Your task to perform on an android device: clear all cookies in the chrome app Image 0: 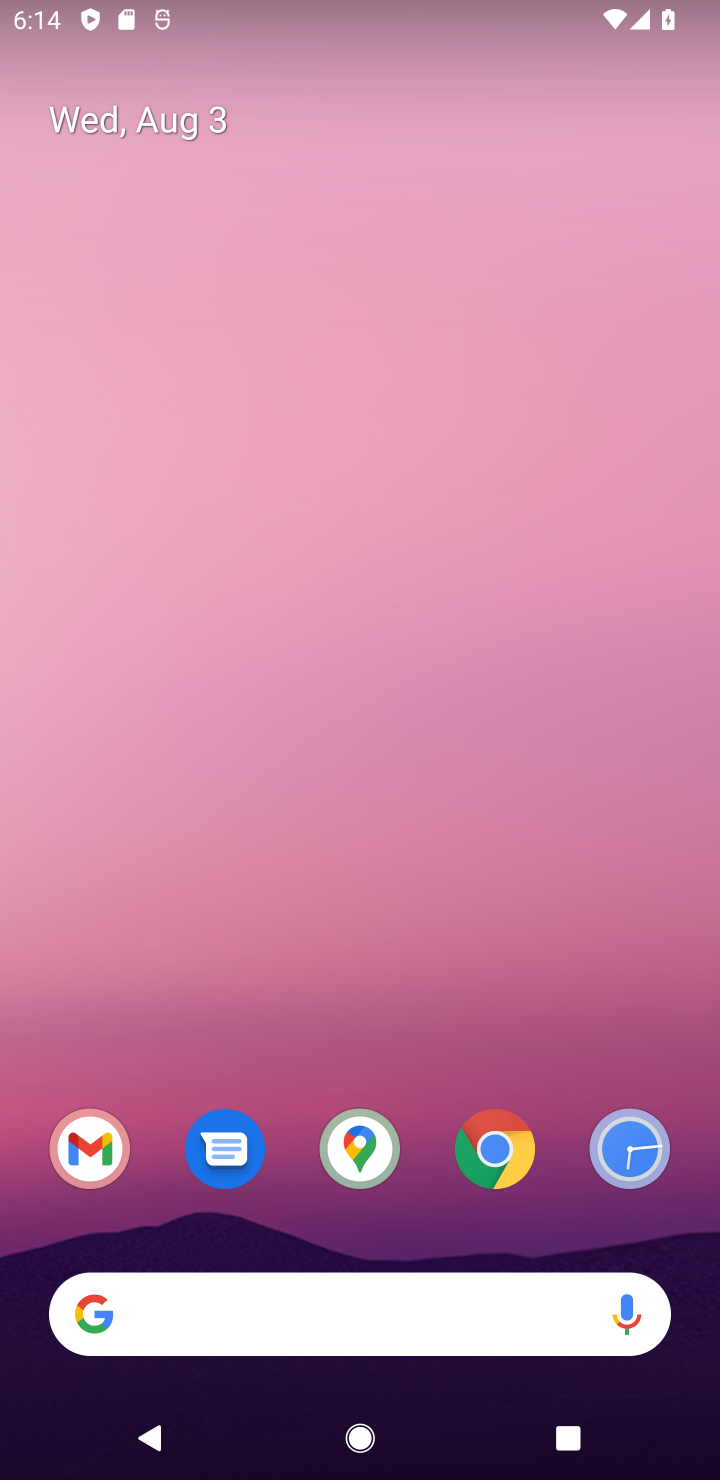
Step 0: click (494, 1147)
Your task to perform on an android device: clear all cookies in the chrome app Image 1: 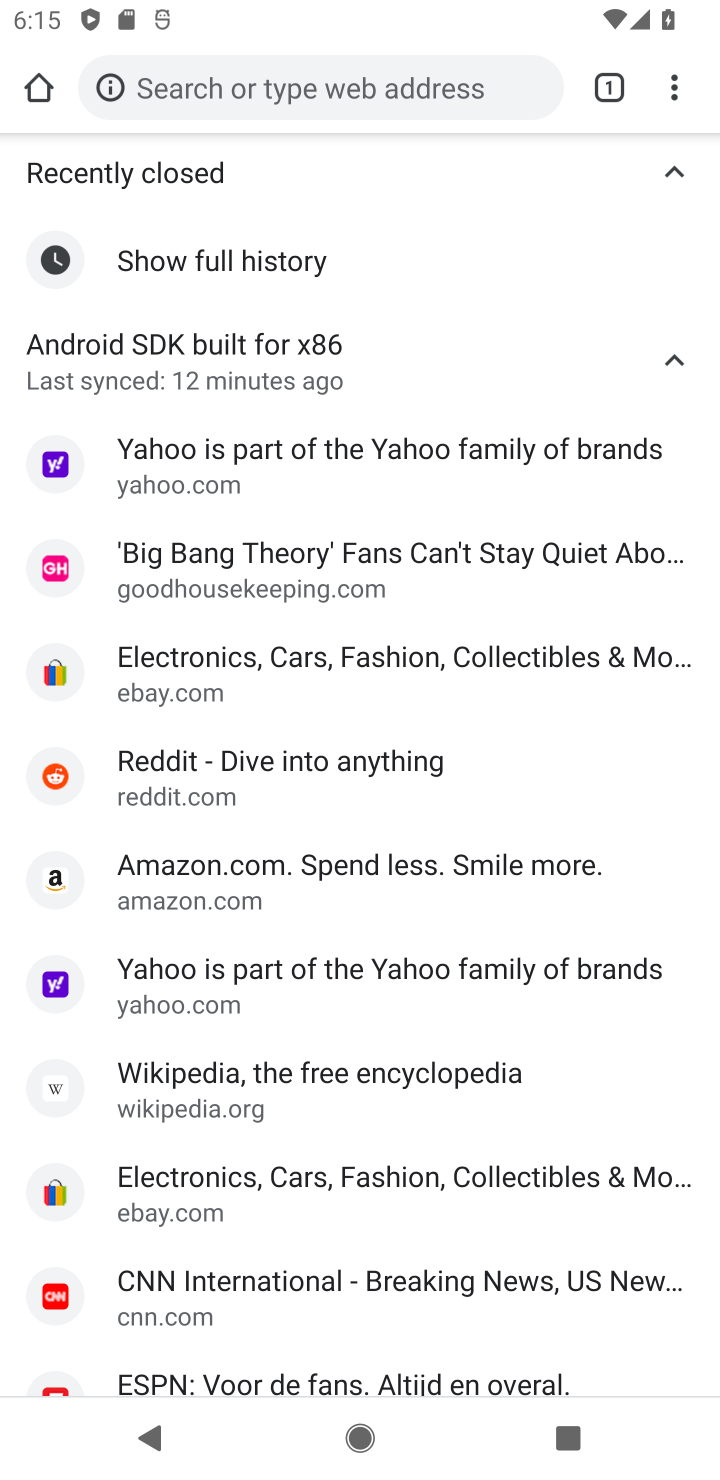
Step 1: drag from (666, 95) to (494, 879)
Your task to perform on an android device: clear all cookies in the chrome app Image 2: 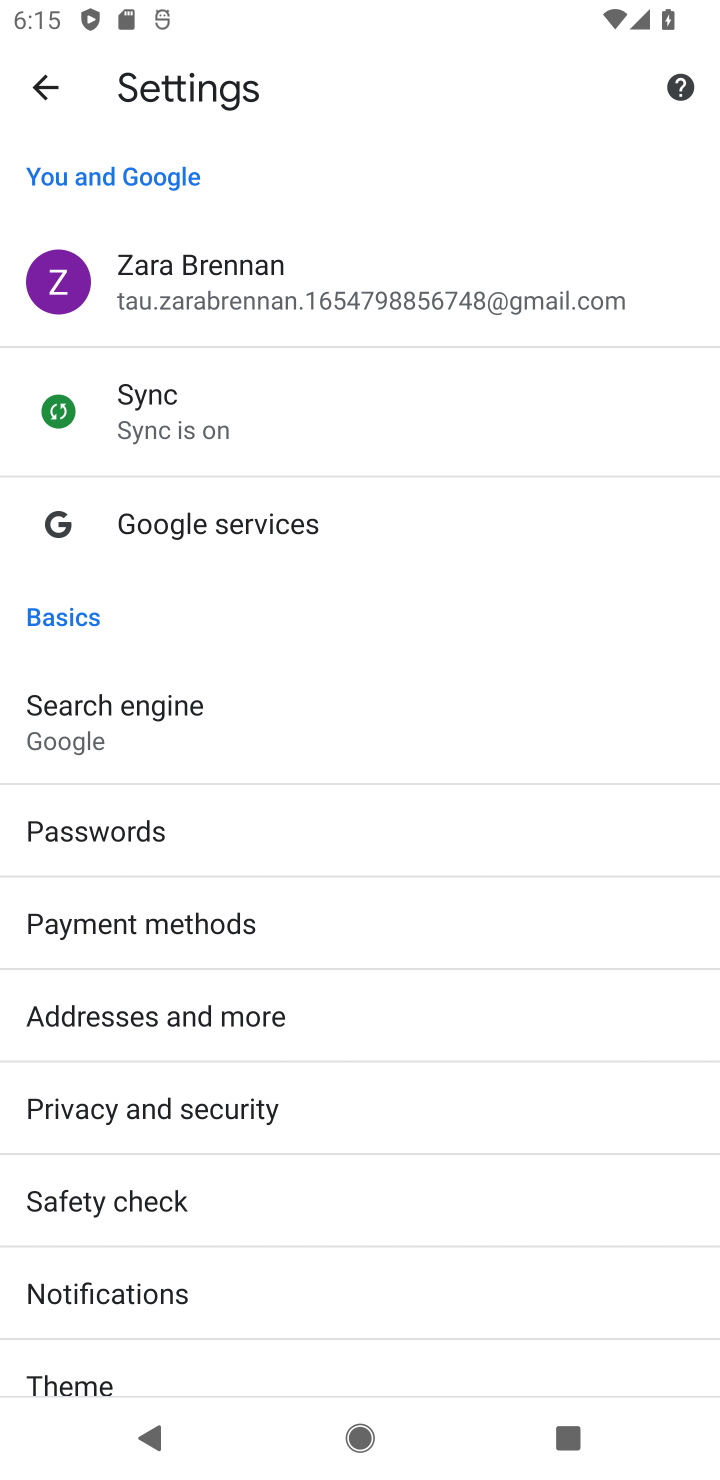
Step 2: drag from (258, 1322) to (274, 696)
Your task to perform on an android device: clear all cookies in the chrome app Image 3: 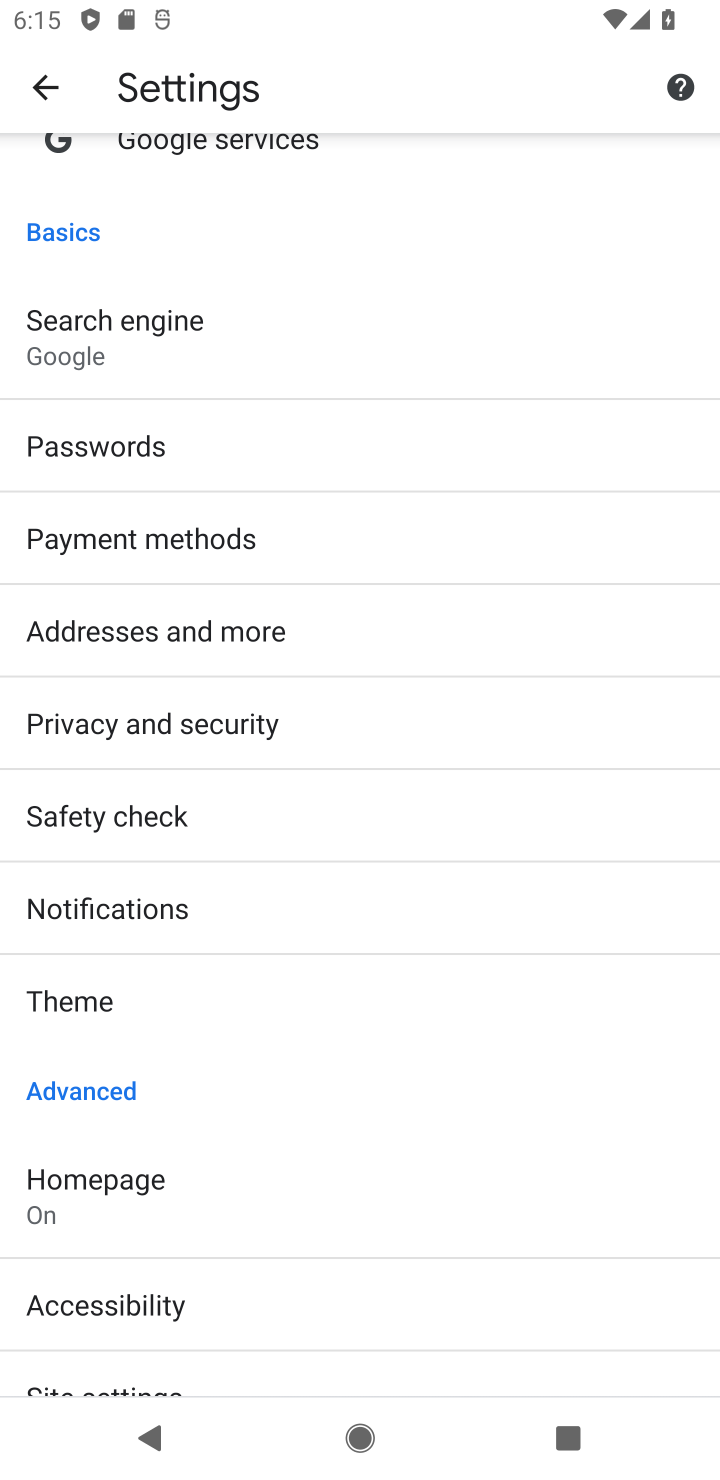
Step 3: click (274, 696)
Your task to perform on an android device: clear all cookies in the chrome app Image 4: 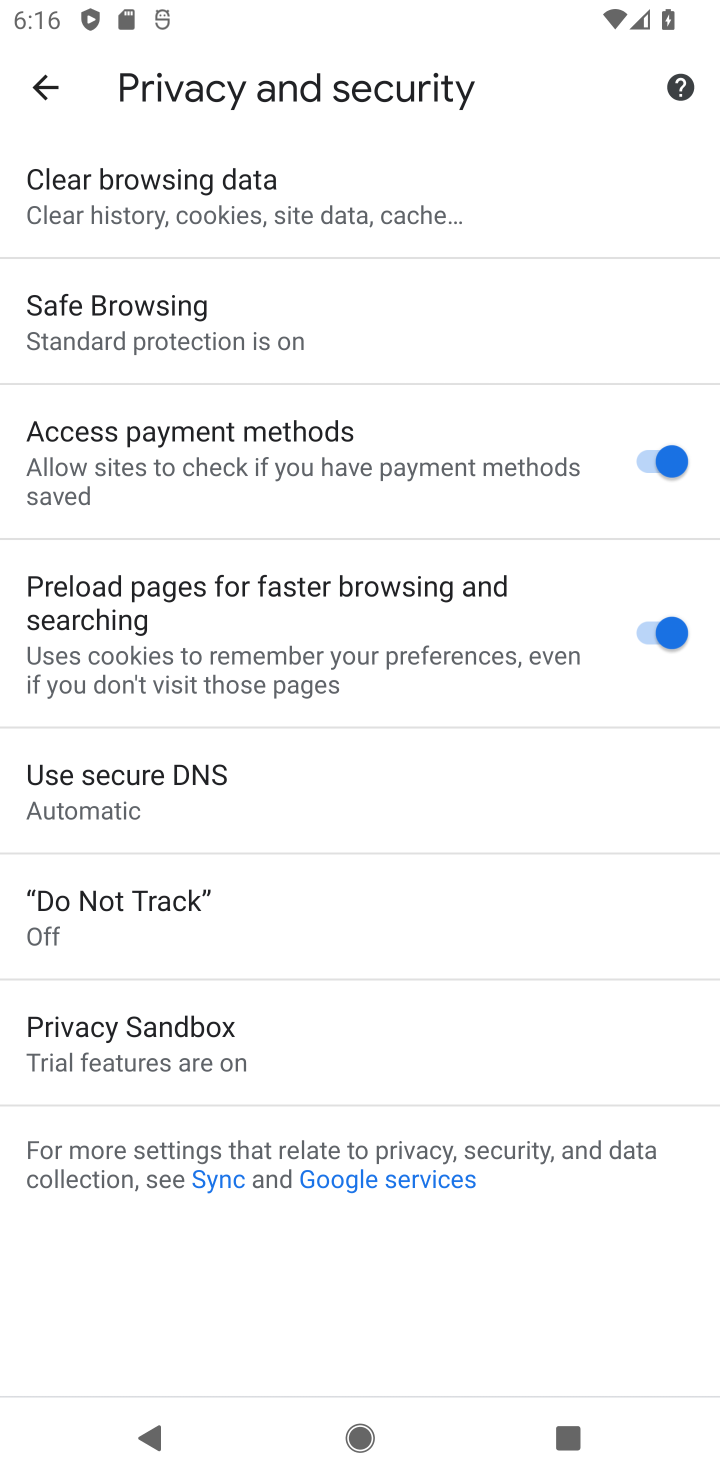
Step 4: click (254, 207)
Your task to perform on an android device: clear all cookies in the chrome app Image 5: 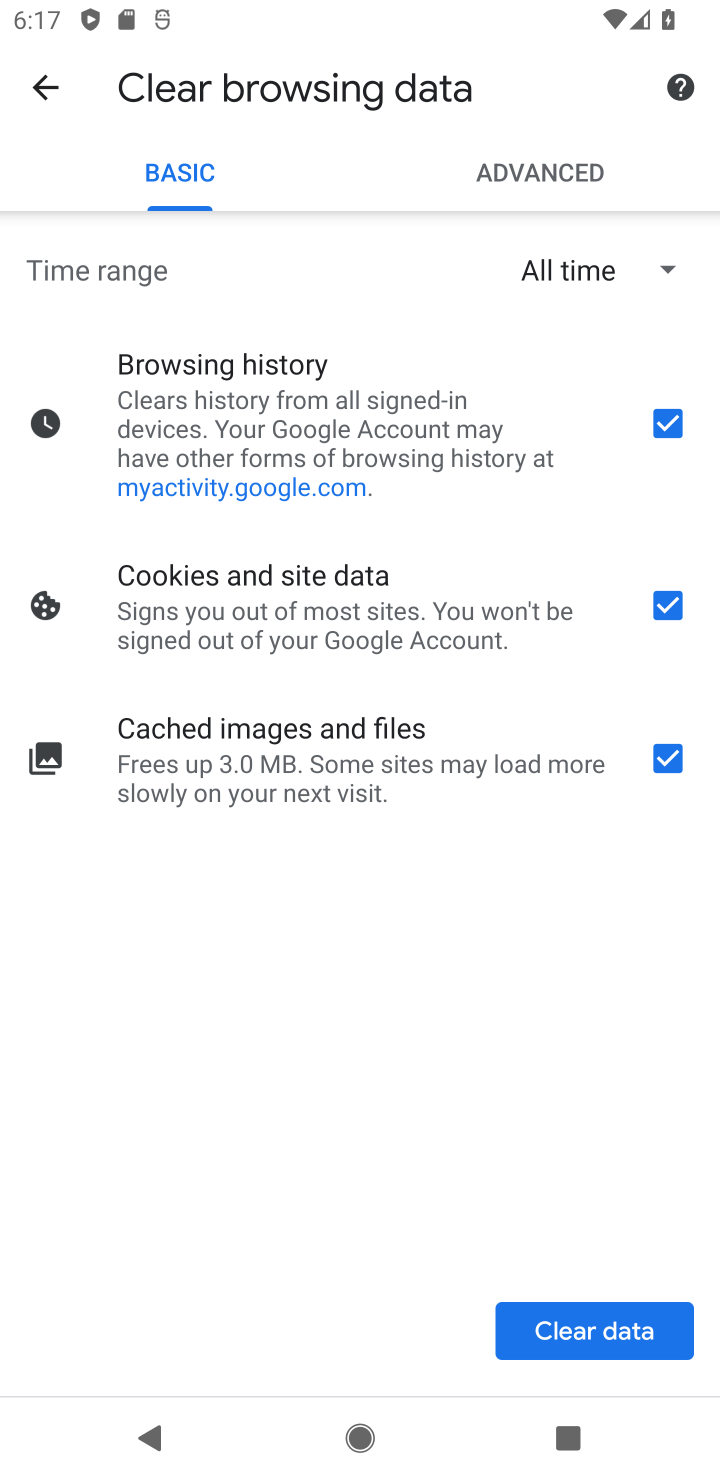
Step 5: click (662, 437)
Your task to perform on an android device: clear all cookies in the chrome app Image 6: 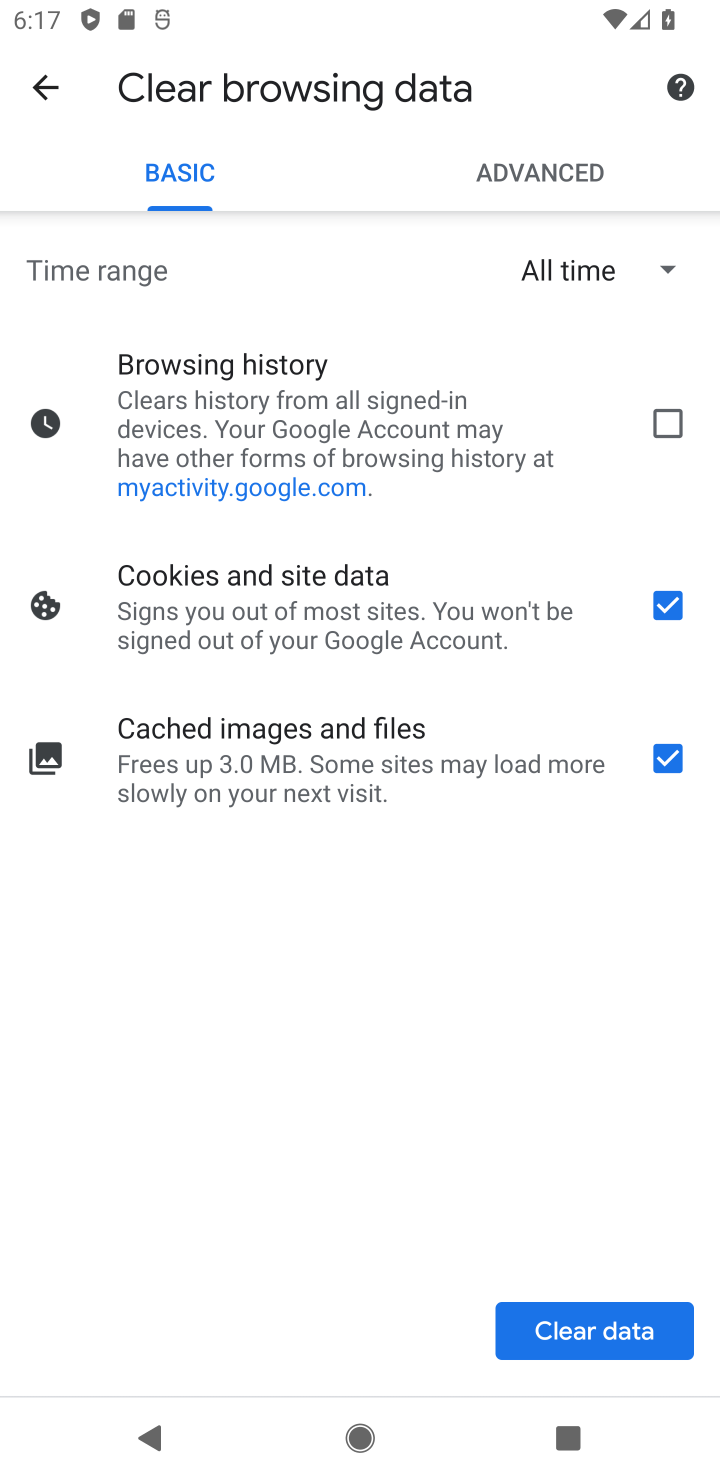
Step 6: click (675, 748)
Your task to perform on an android device: clear all cookies in the chrome app Image 7: 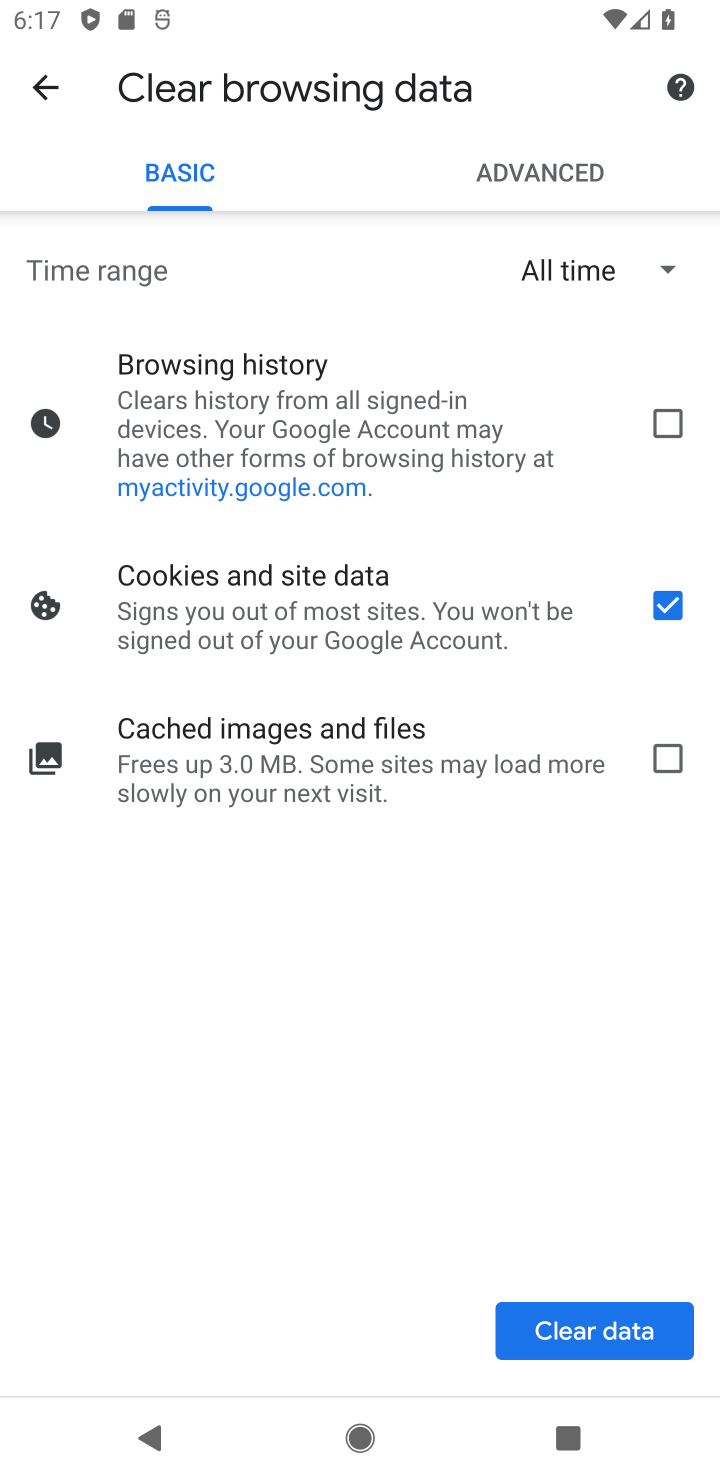
Step 7: click (611, 1331)
Your task to perform on an android device: clear all cookies in the chrome app Image 8: 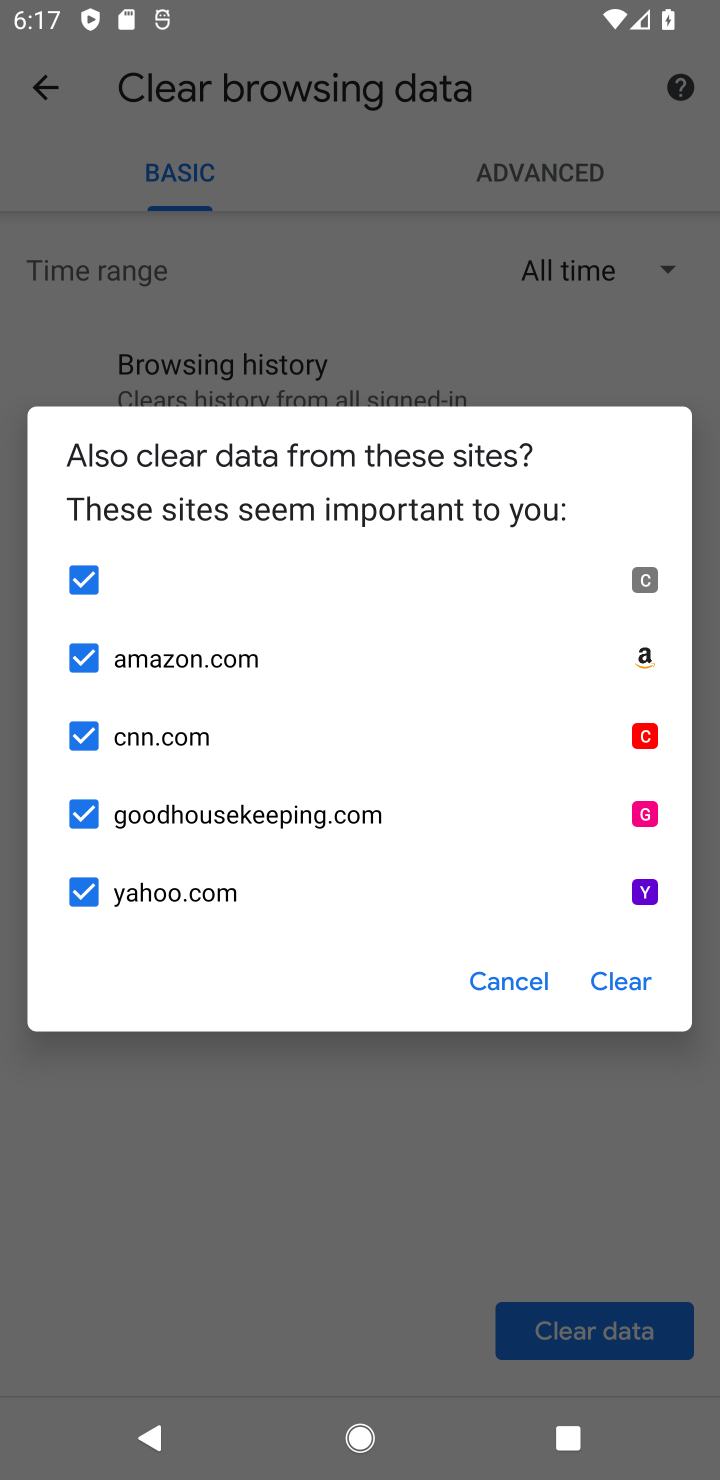
Step 8: click (618, 977)
Your task to perform on an android device: clear all cookies in the chrome app Image 9: 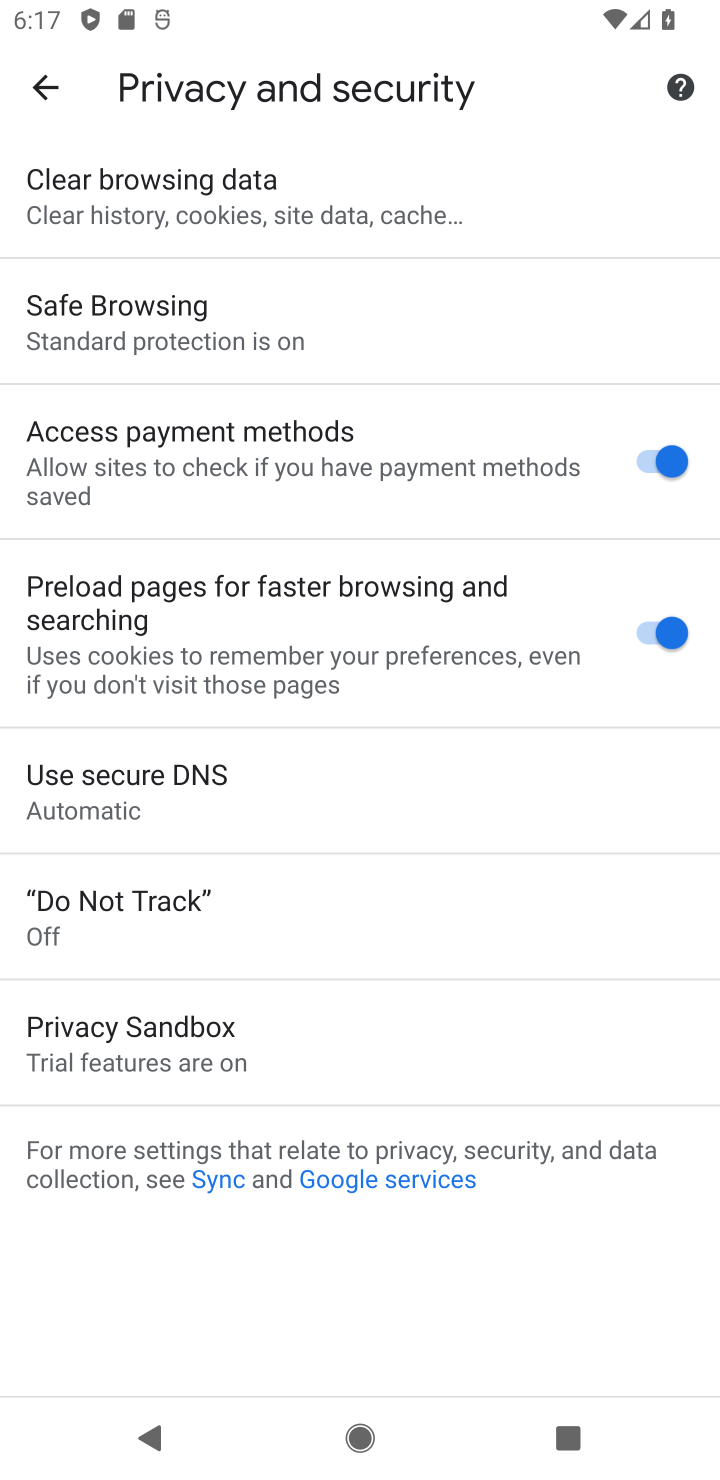
Step 9: task complete